Your task to perform on an android device: choose inbox layout in the gmail app Image 0: 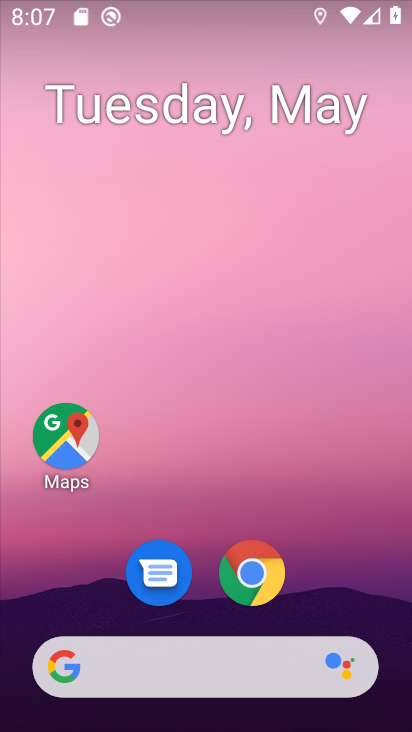
Step 0: drag from (394, 595) to (387, 203)
Your task to perform on an android device: choose inbox layout in the gmail app Image 1: 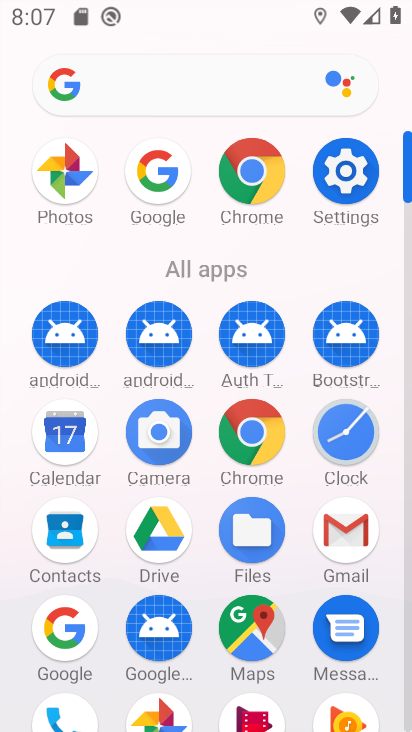
Step 1: click (343, 535)
Your task to perform on an android device: choose inbox layout in the gmail app Image 2: 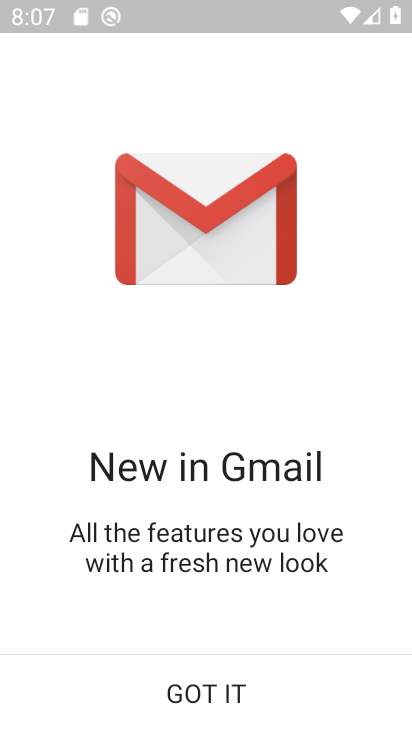
Step 2: click (218, 694)
Your task to perform on an android device: choose inbox layout in the gmail app Image 3: 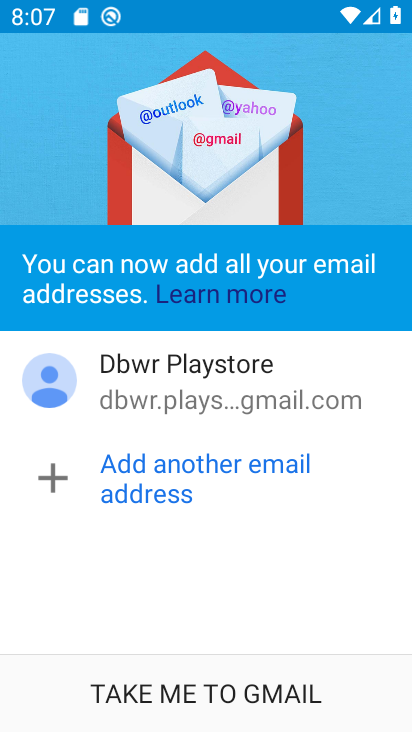
Step 3: click (216, 687)
Your task to perform on an android device: choose inbox layout in the gmail app Image 4: 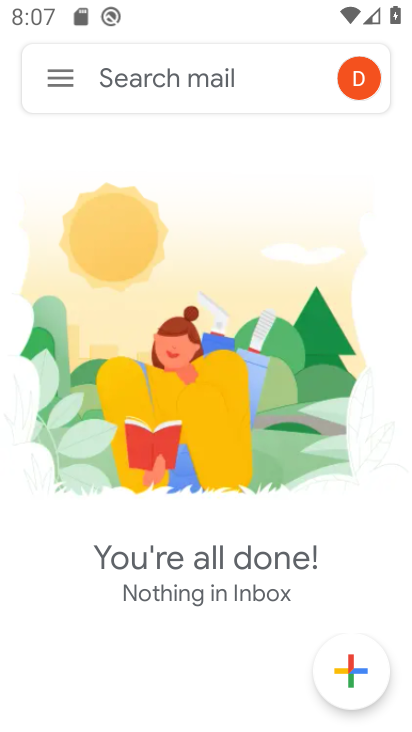
Step 4: click (68, 72)
Your task to perform on an android device: choose inbox layout in the gmail app Image 5: 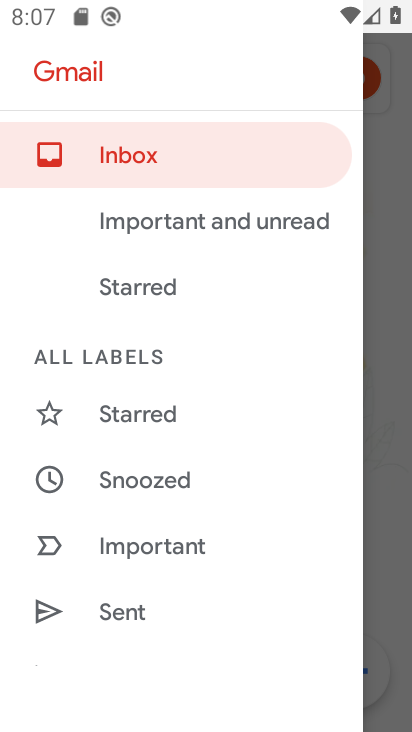
Step 5: click (141, 160)
Your task to perform on an android device: choose inbox layout in the gmail app Image 6: 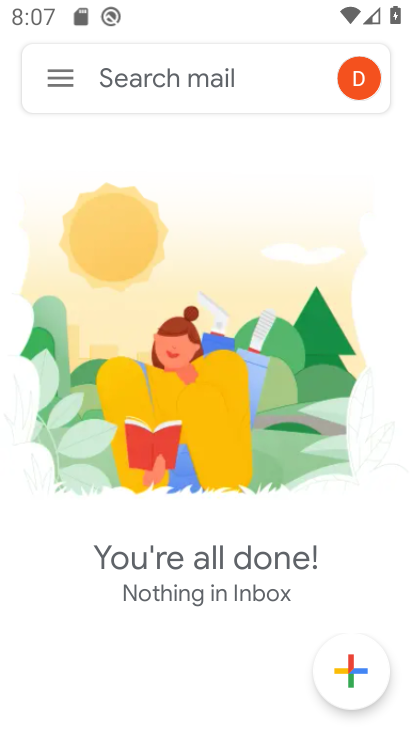
Step 6: click (52, 72)
Your task to perform on an android device: choose inbox layout in the gmail app Image 7: 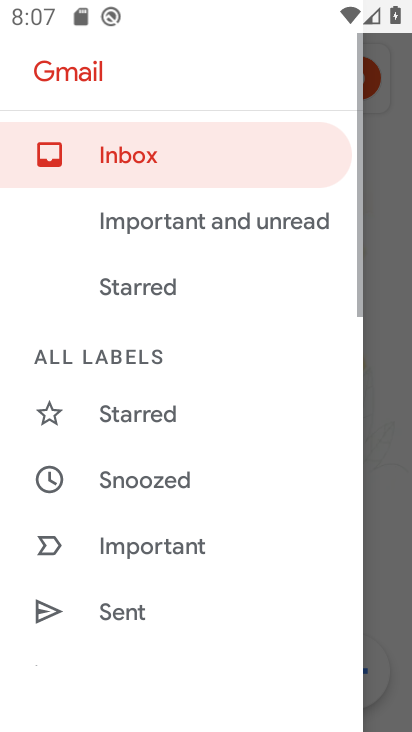
Step 7: drag from (252, 665) to (218, 250)
Your task to perform on an android device: choose inbox layout in the gmail app Image 8: 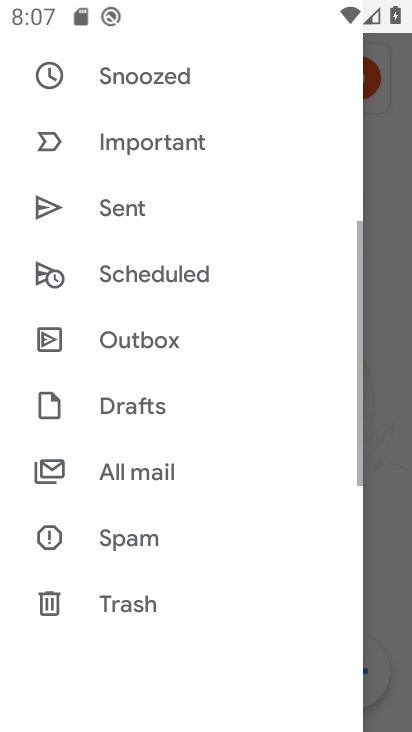
Step 8: drag from (233, 598) to (243, 400)
Your task to perform on an android device: choose inbox layout in the gmail app Image 9: 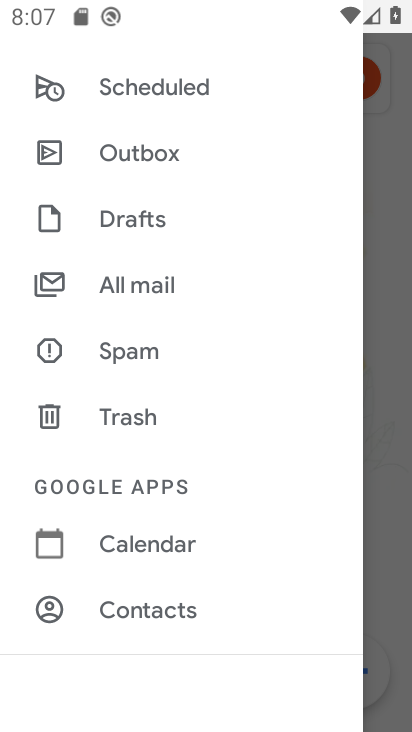
Step 9: drag from (258, 630) to (257, 321)
Your task to perform on an android device: choose inbox layout in the gmail app Image 10: 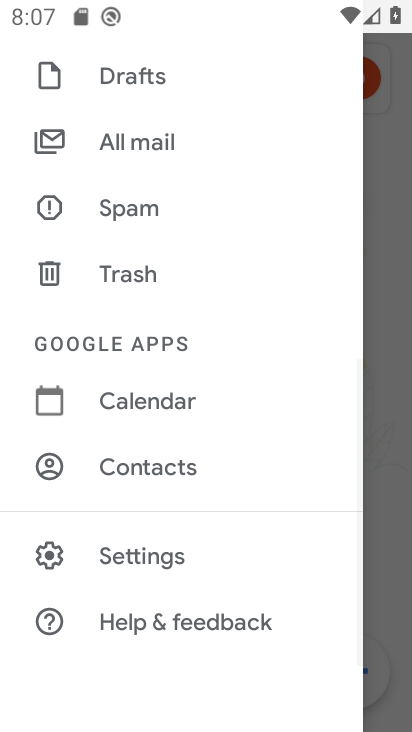
Step 10: click (138, 554)
Your task to perform on an android device: choose inbox layout in the gmail app Image 11: 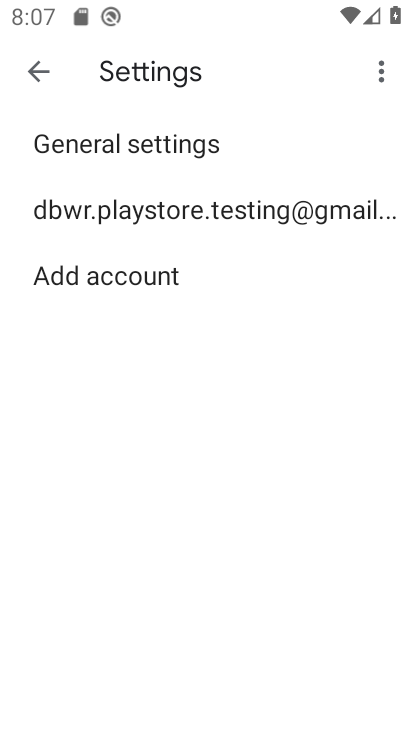
Step 11: click (132, 205)
Your task to perform on an android device: choose inbox layout in the gmail app Image 12: 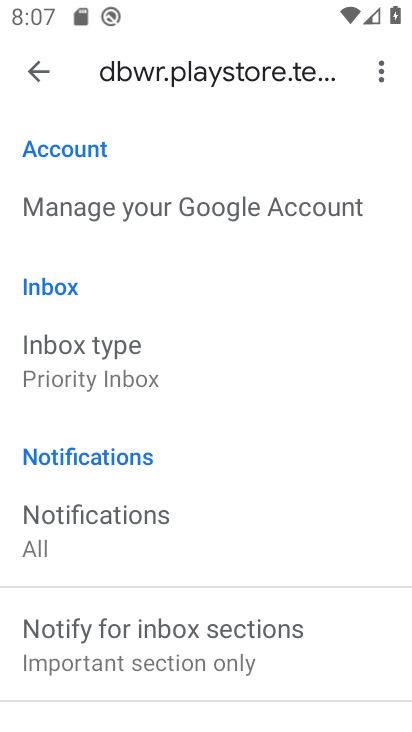
Step 12: click (82, 361)
Your task to perform on an android device: choose inbox layout in the gmail app Image 13: 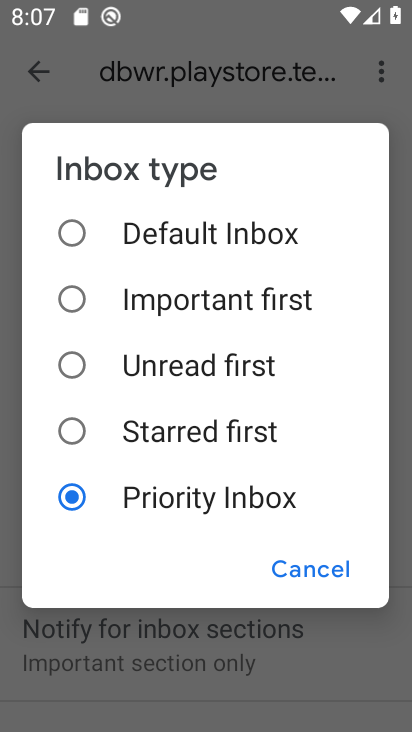
Step 13: click (68, 234)
Your task to perform on an android device: choose inbox layout in the gmail app Image 14: 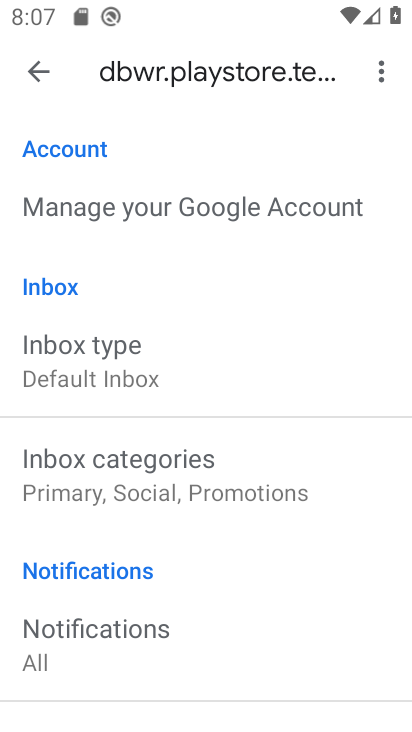
Step 14: task complete